Your task to perform on an android device: Turn off the flashlight Image 0: 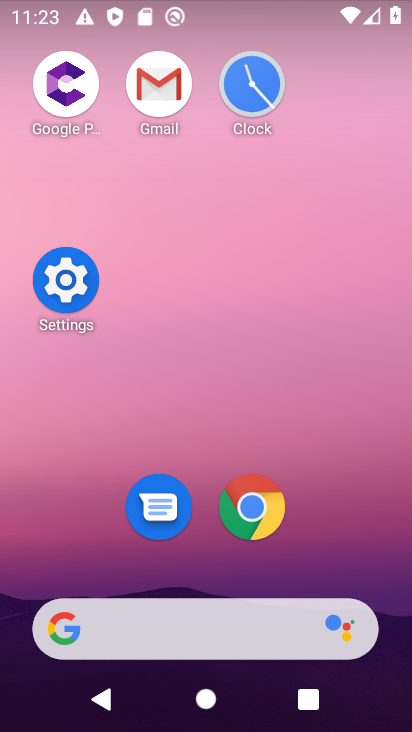
Step 0: drag from (192, 3) to (221, 467)
Your task to perform on an android device: Turn off the flashlight Image 1: 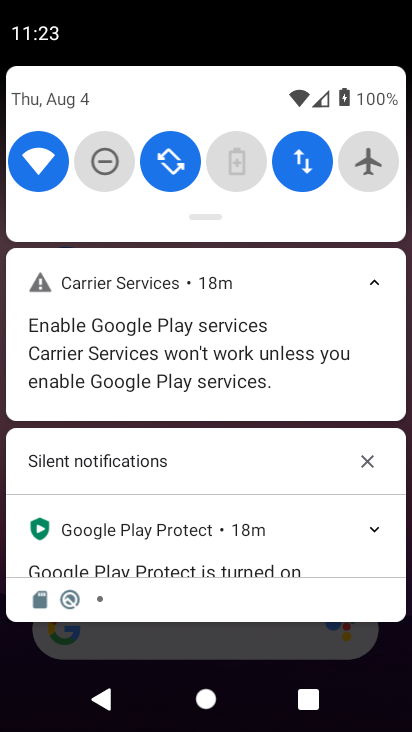
Step 1: task complete